Your task to perform on an android device: Open Wikipedia Image 0: 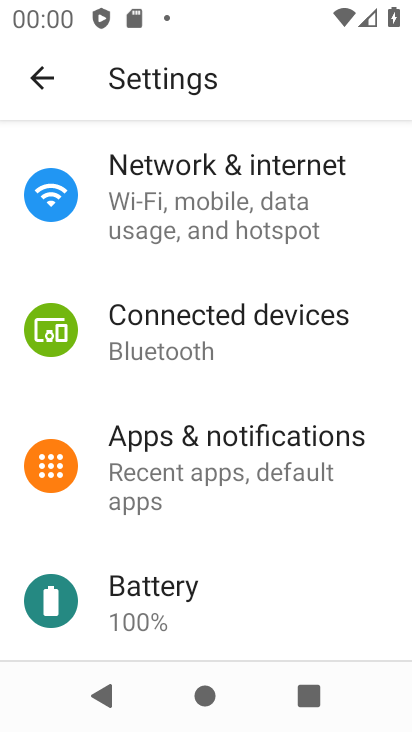
Step 0: press home button
Your task to perform on an android device: Open Wikipedia Image 1: 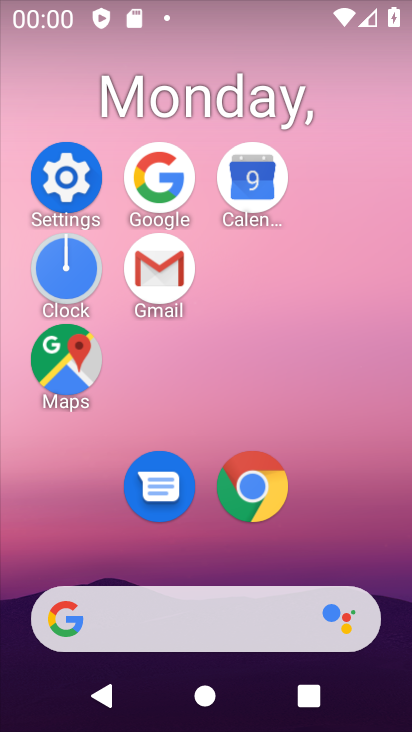
Step 1: click (251, 502)
Your task to perform on an android device: Open Wikipedia Image 2: 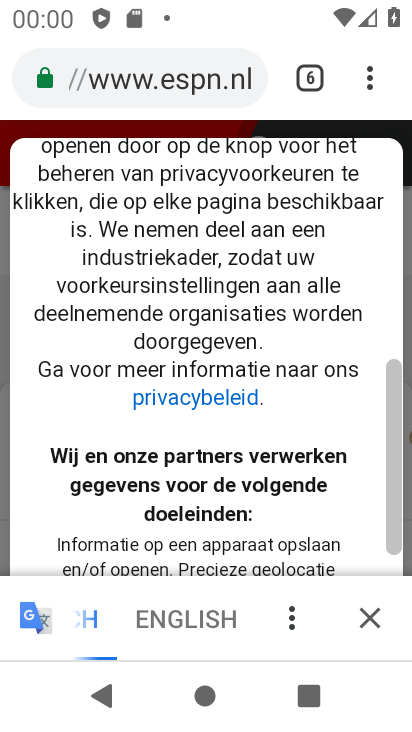
Step 2: click (318, 70)
Your task to perform on an android device: Open Wikipedia Image 3: 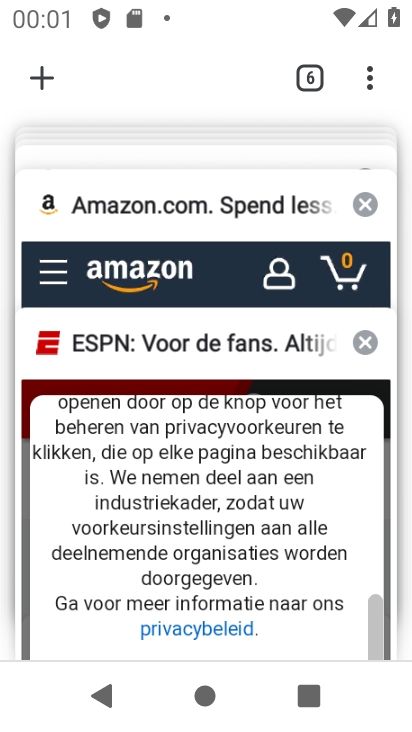
Step 3: click (50, 79)
Your task to perform on an android device: Open Wikipedia Image 4: 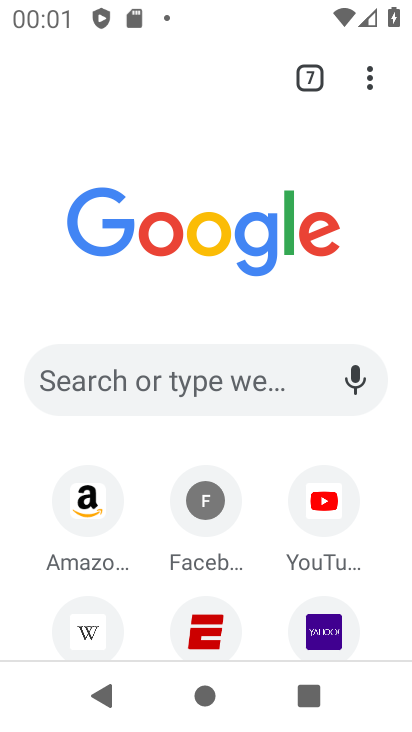
Step 4: click (101, 612)
Your task to perform on an android device: Open Wikipedia Image 5: 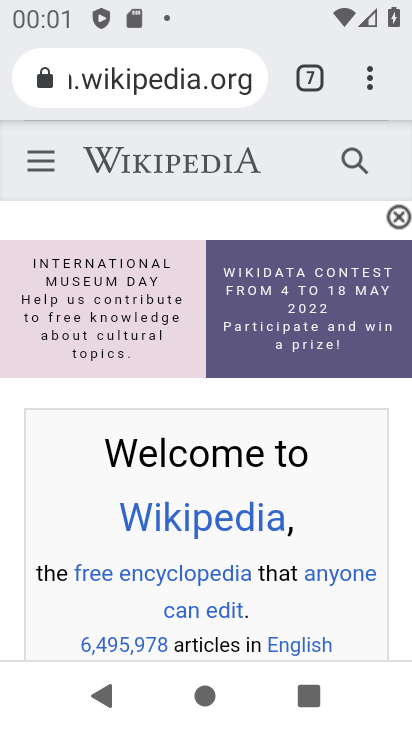
Step 5: task complete